Your task to perform on an android device: Open Amazon Image 0: 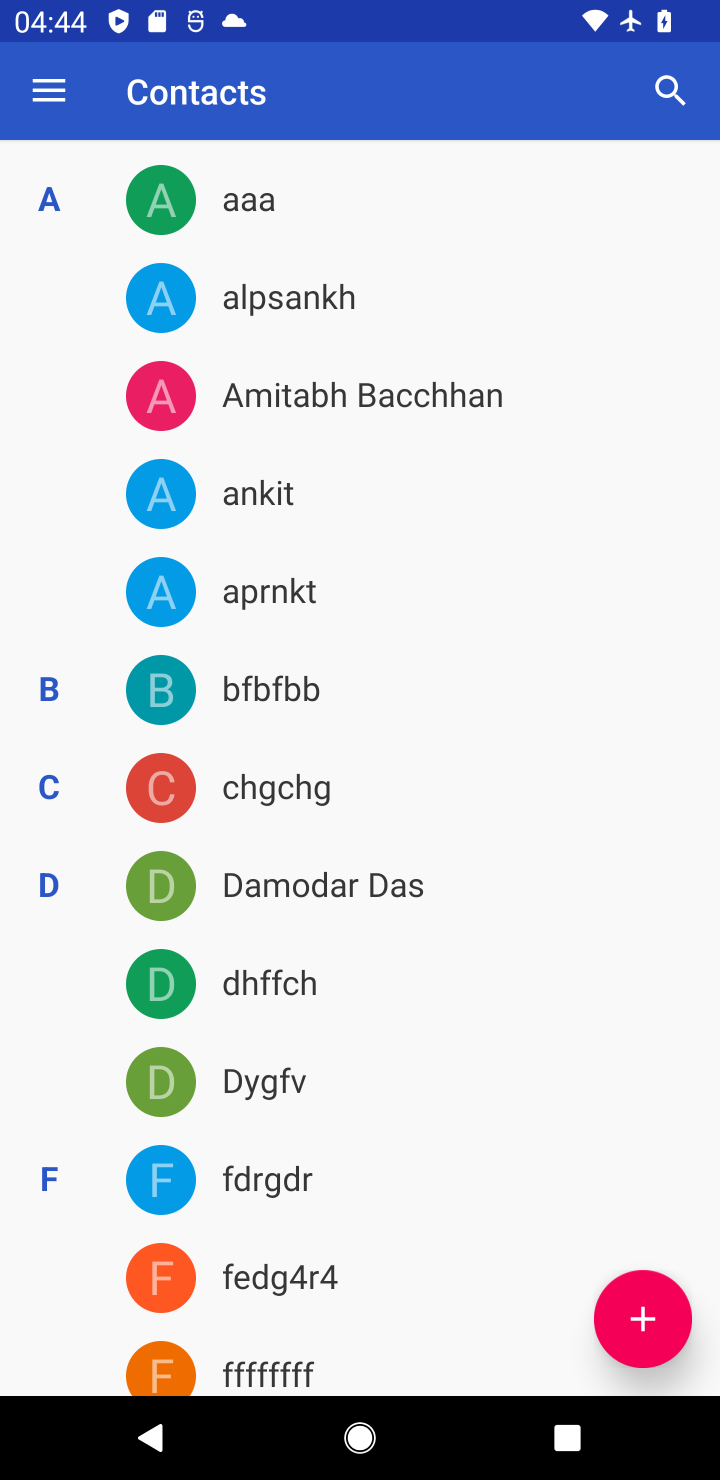
Step 0: press home button
Your task to perform on an android device: Open Amazon Image 1: 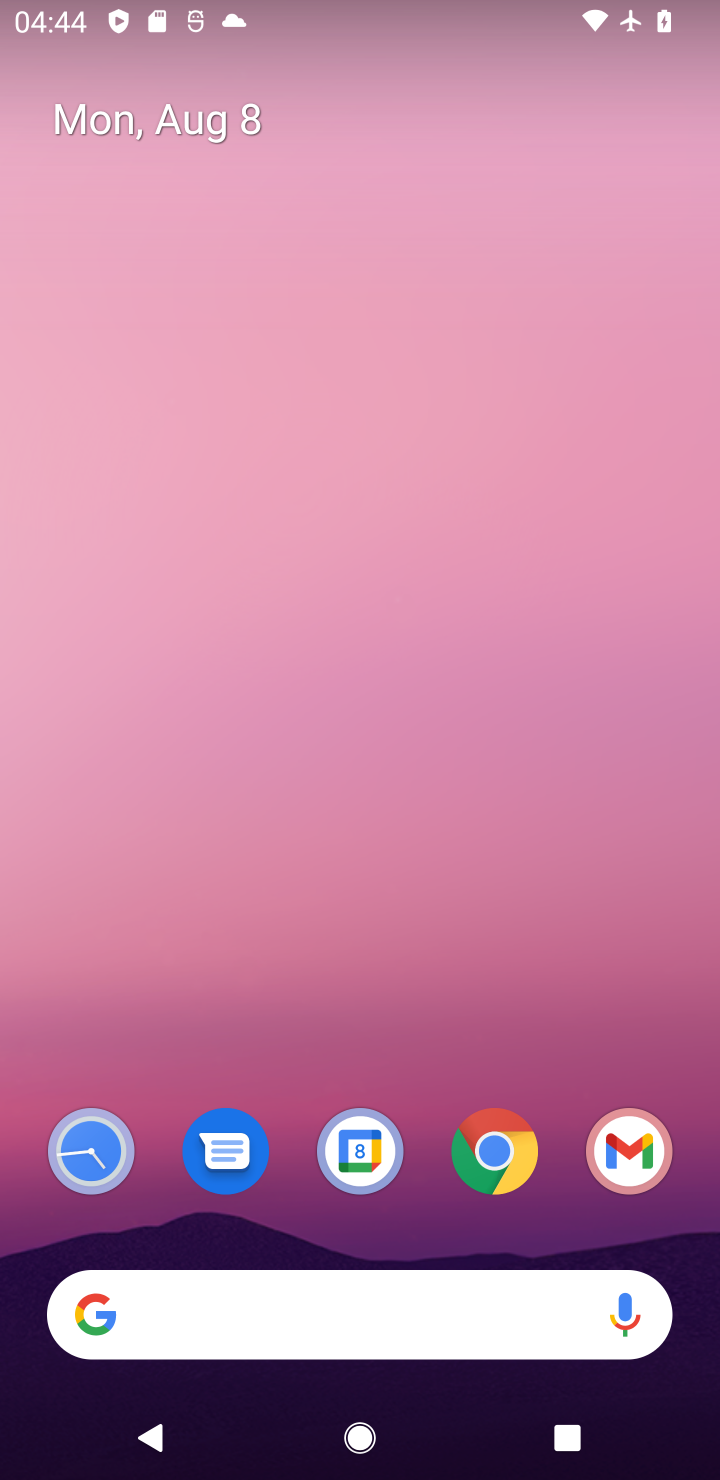
Step 1: drag from (396, 1022) to (388, 137)
Your task to perform on an android device: Open Amazon Image 2: 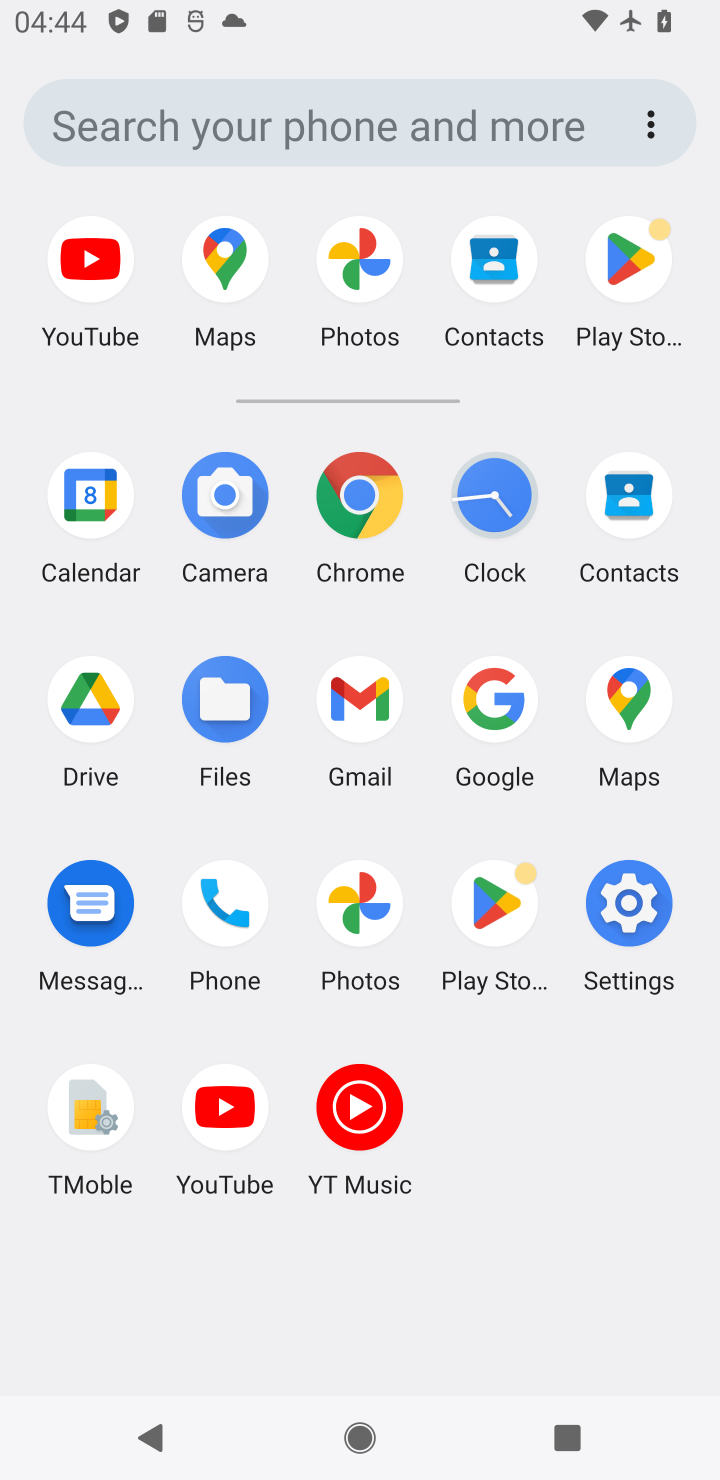
Step 2: click (486, 711)
Your task to perform on an android device: Open Amazon Image 3: 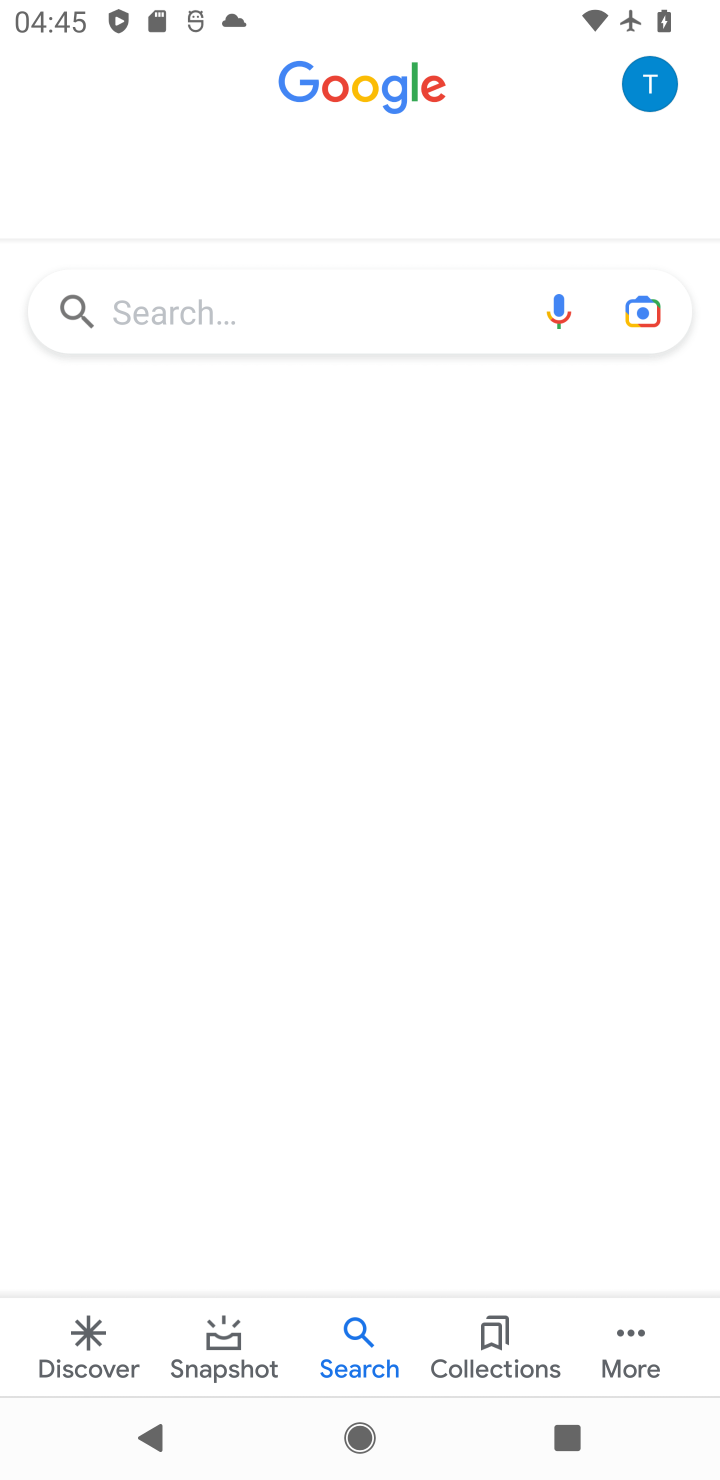
Step 3: click (278, 319)
Your task to perform on an android device: Open Amazon Image 4: 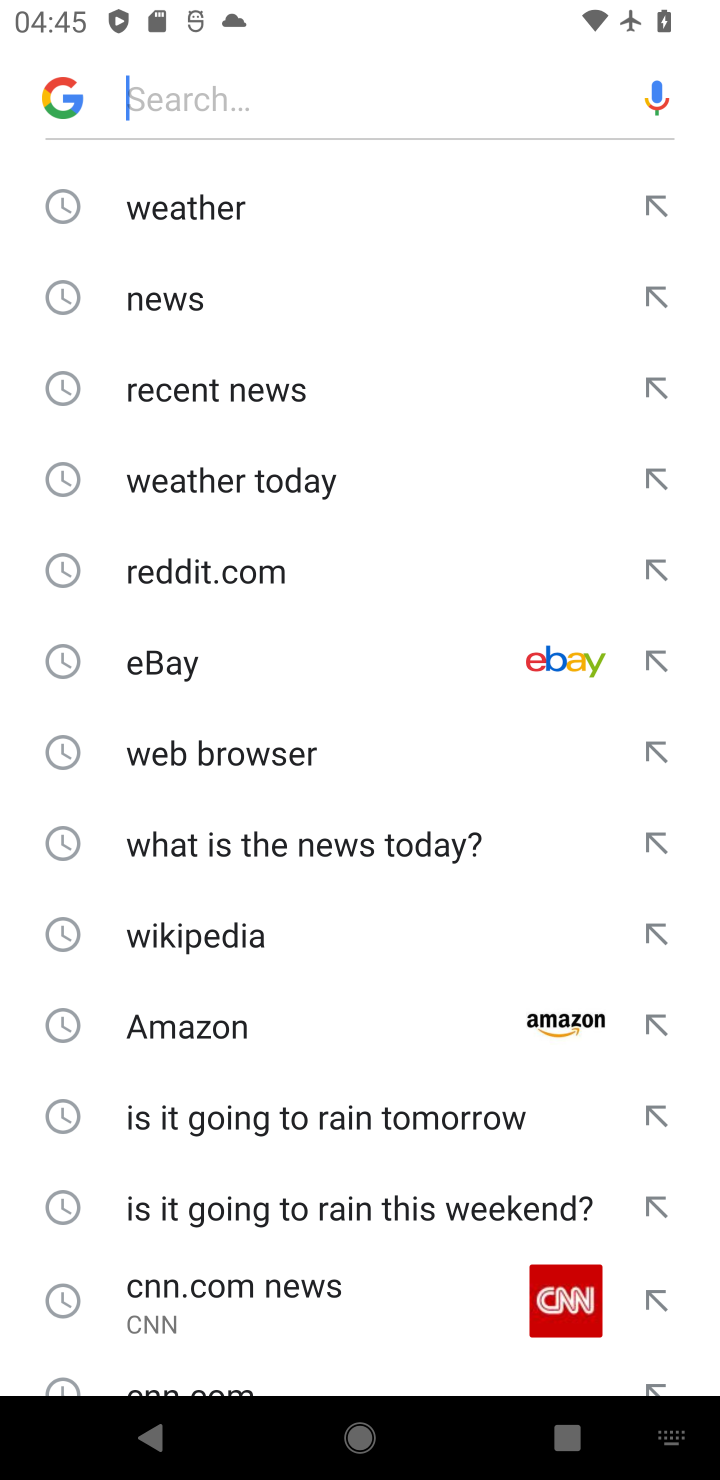
Step 4: type "Amazon"
Your task to perform on an android device: Open Amazon Image 5: 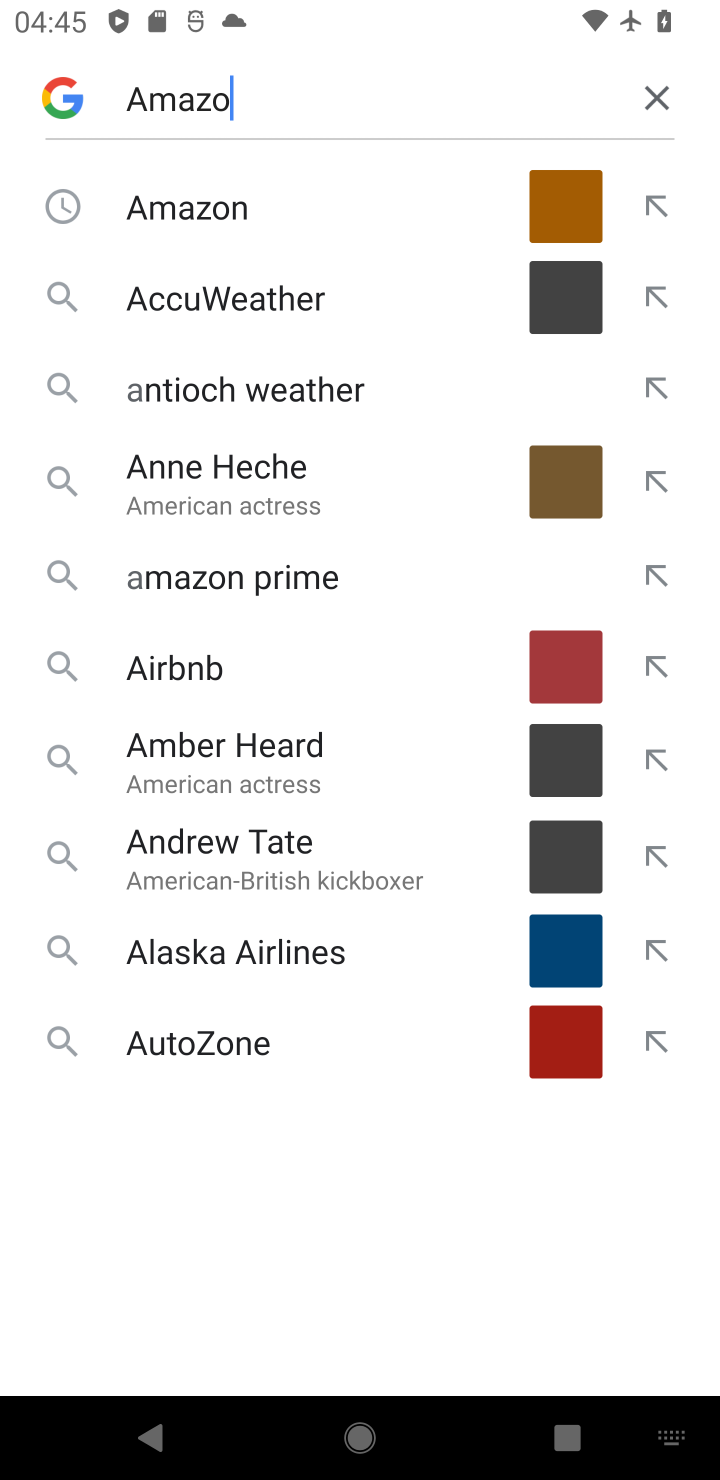
Step 5: type ""
Your task to perform on an android device: Open Amazon Image 6: 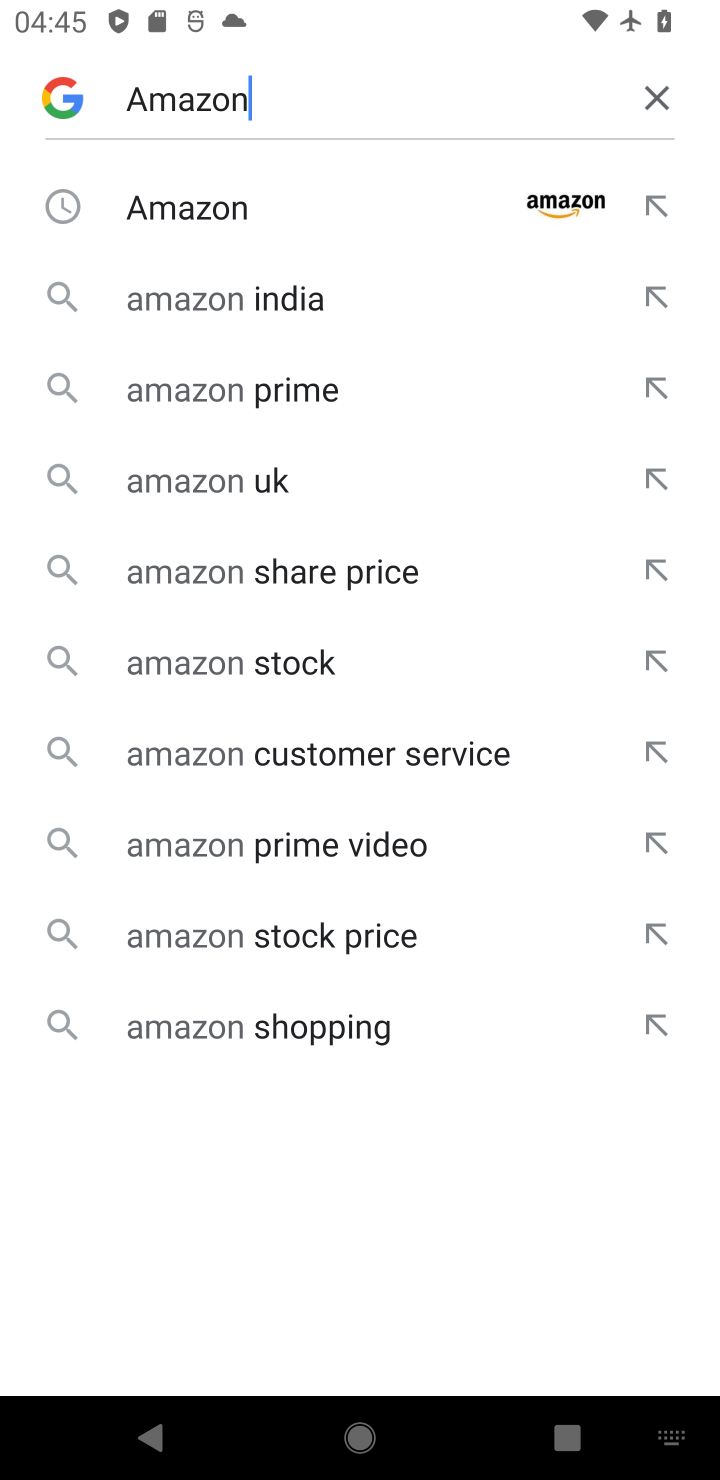
Step 6: click (181, 229)
Your task to perform on an android device: Open Amazon Image 7: 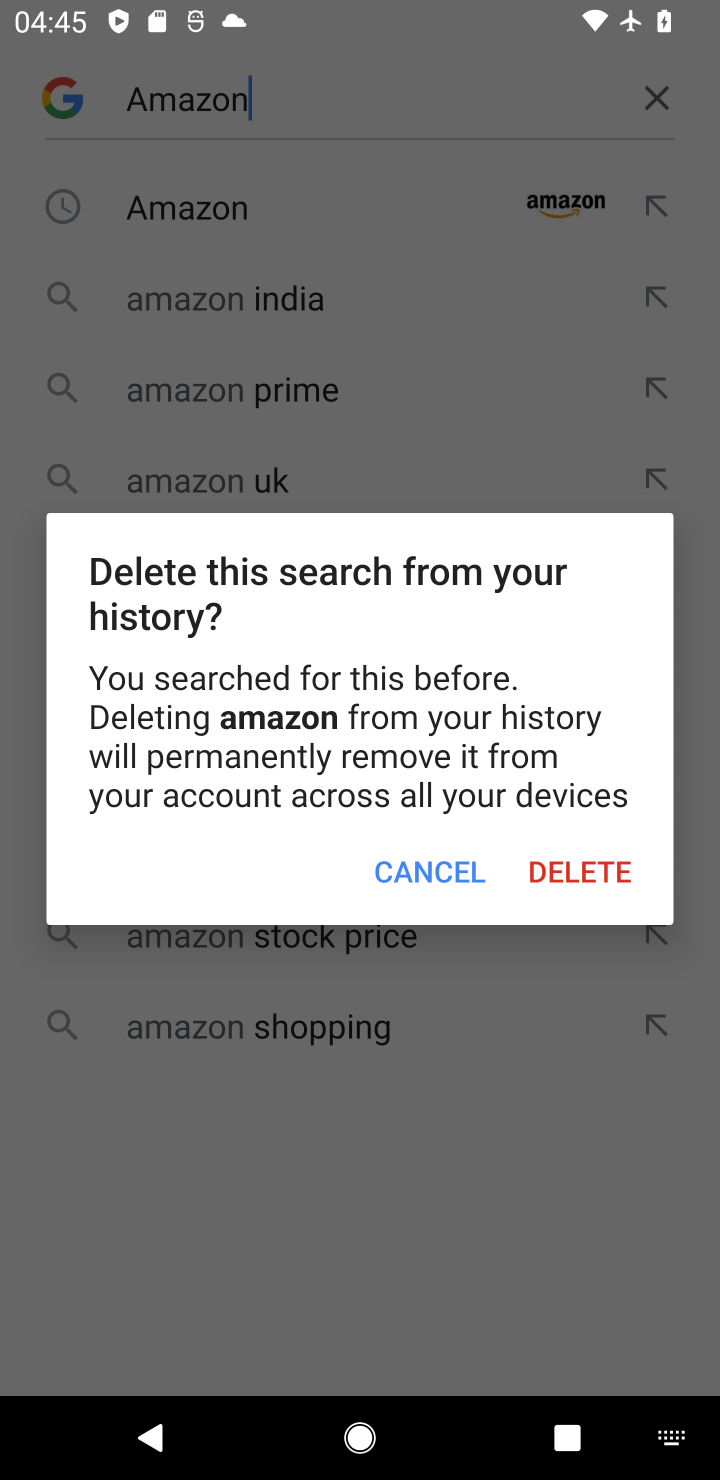
Step 7: click (441, 862)
Your task to perform on an android device: Open Amazon Image 8: 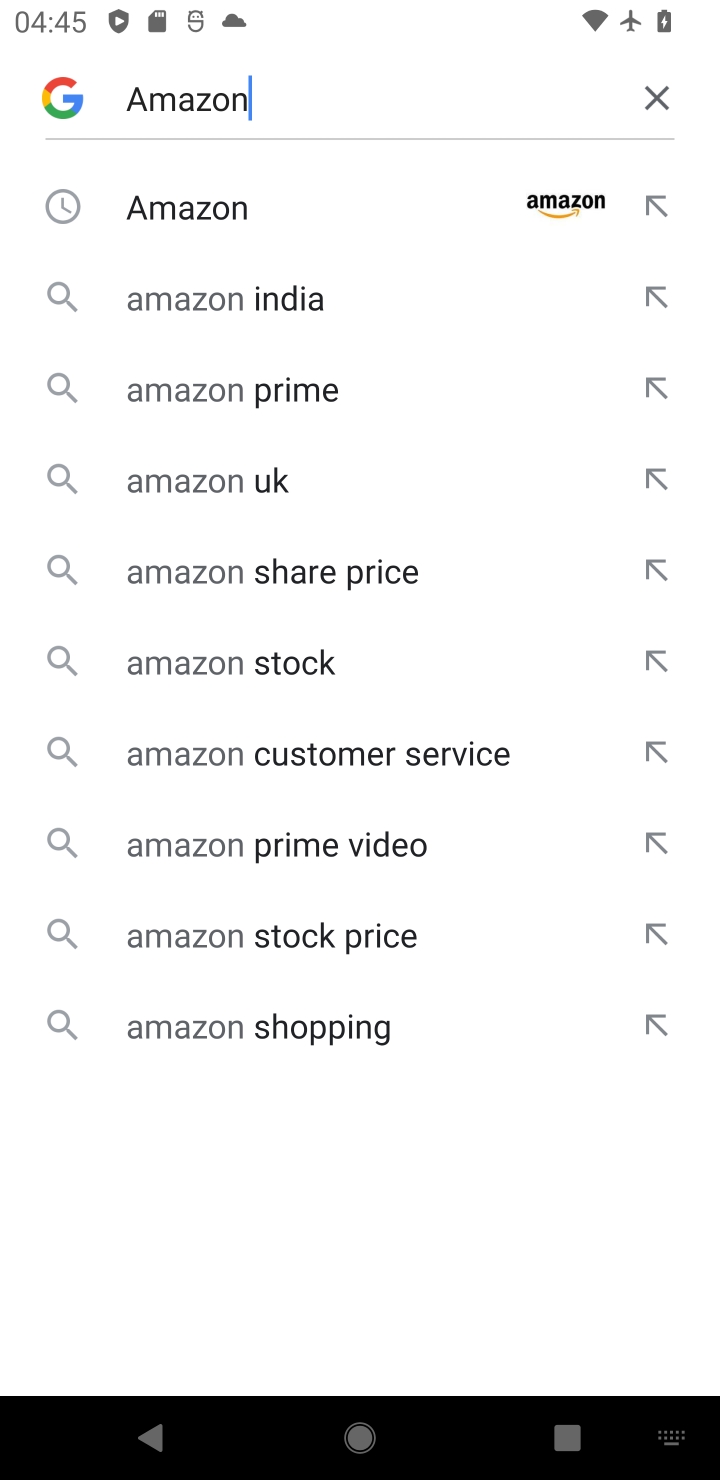
Step 8: click (248, 206)
Your task to perform on an android device: Open Amazon Image 9: 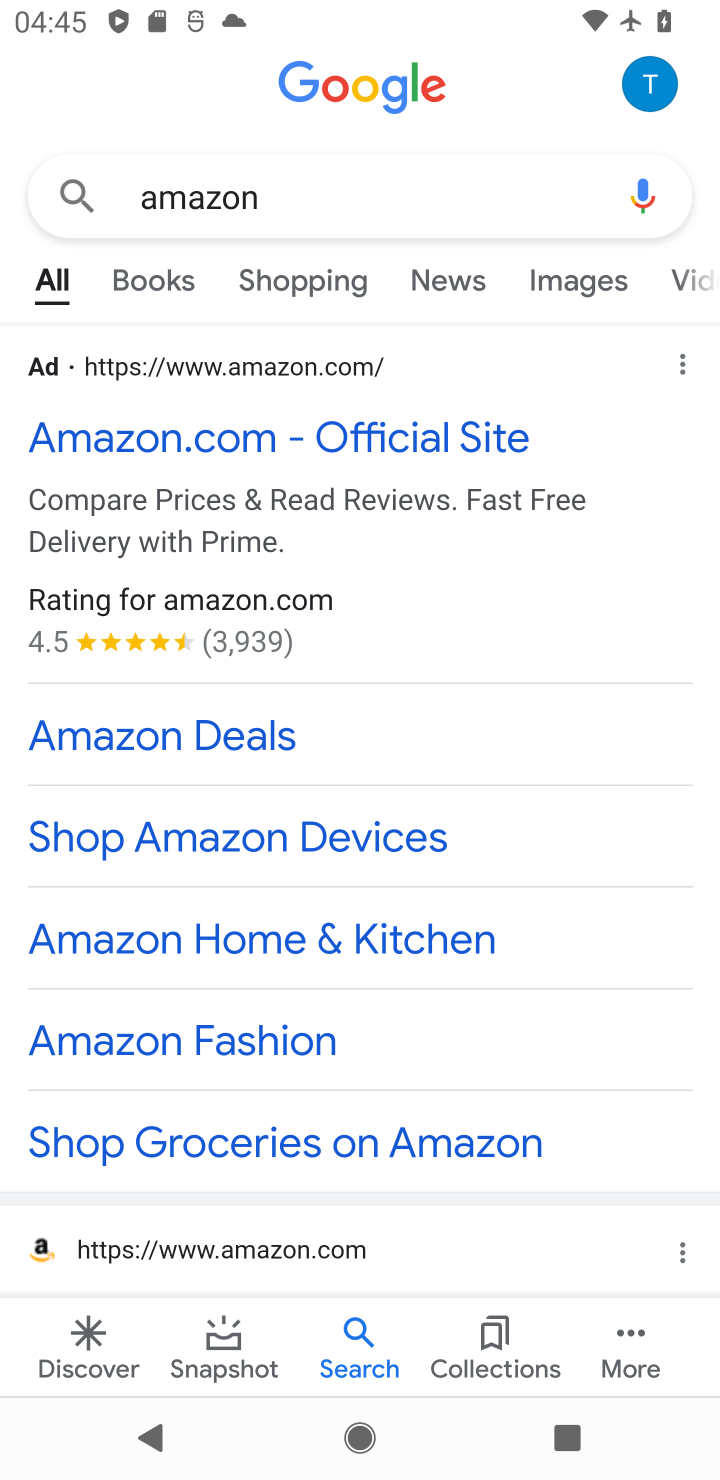
Step 9: drag from (290, 911) to (294, 208)
Your task to perform on an android device: Open Amazon Image 10: 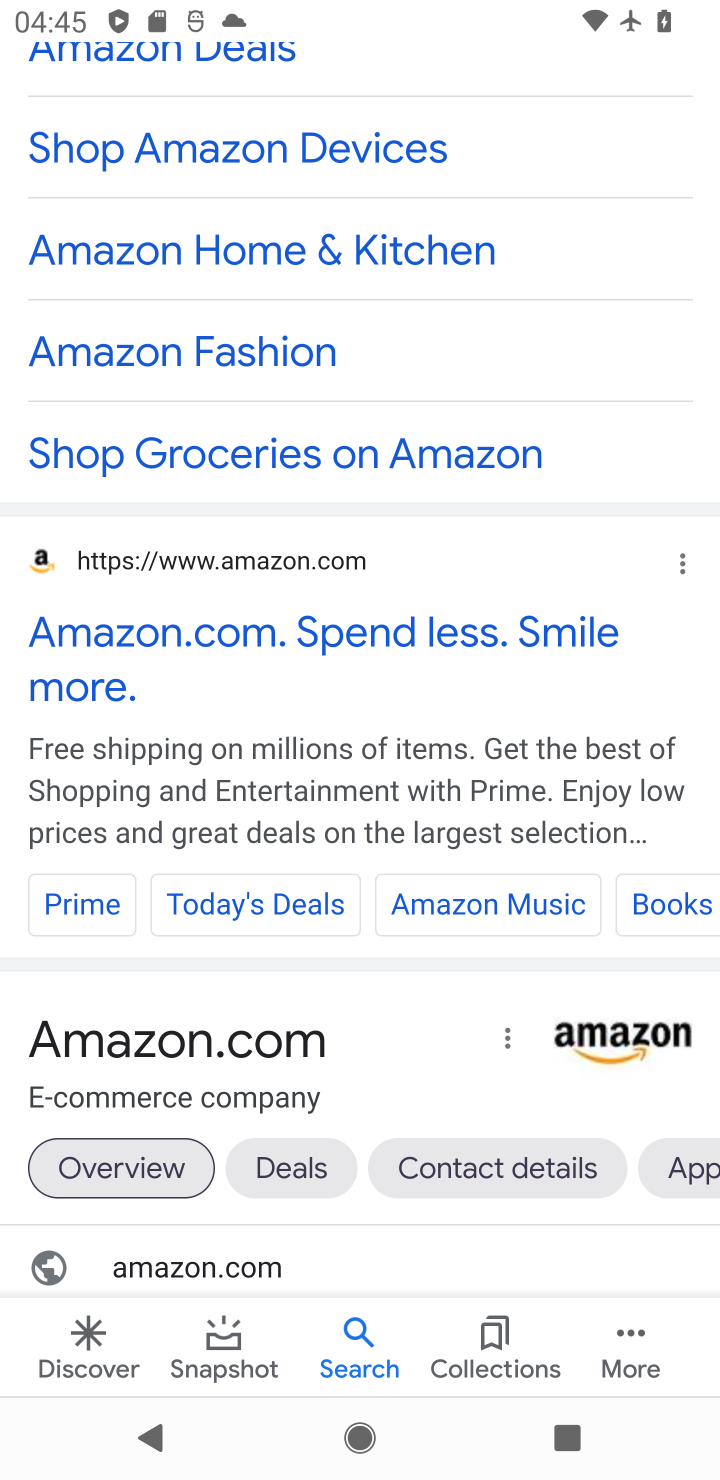
Step 10: click (265, 980)
Your task to perform on an android device: Open Amazon Image 11: 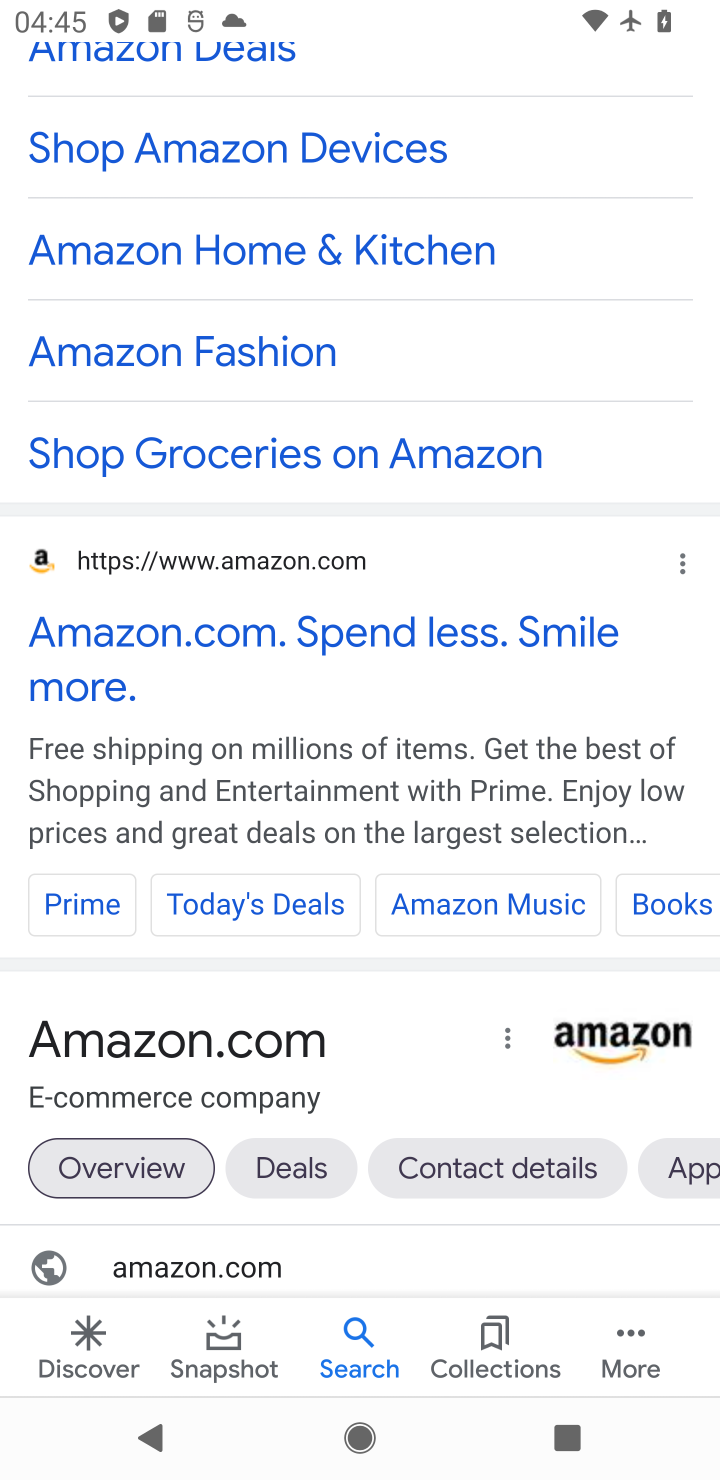
Step 11: click (208, 630)
Your task to perform on an android device: Open Amazon Image 12: 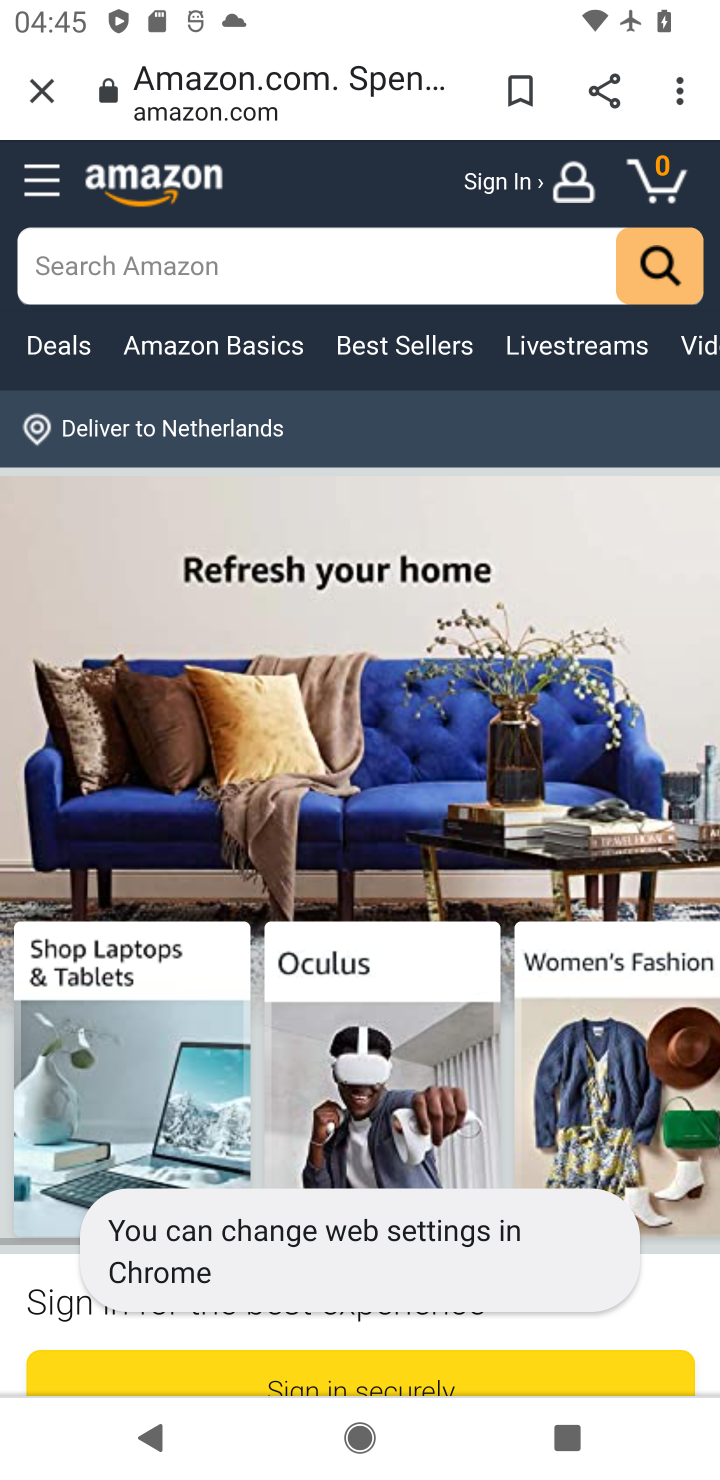
Step 12: task complete